Your task to perform on an android device: Open the stopwatch Image 0: 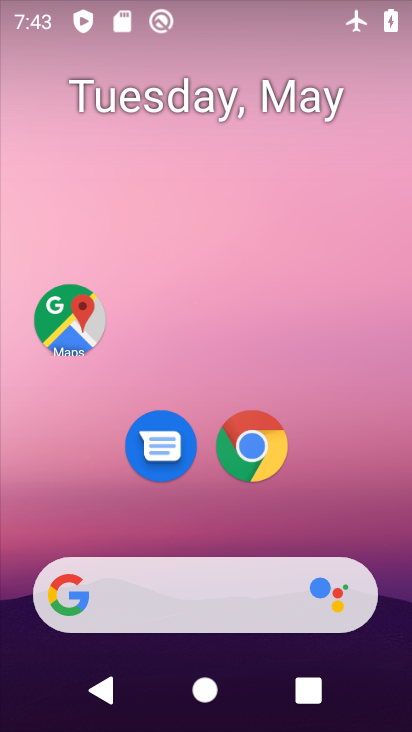
Step 0: drag from (321, 551) to (346, 3)
Your task to perform on an android device: Open the stopwatch Image 1: 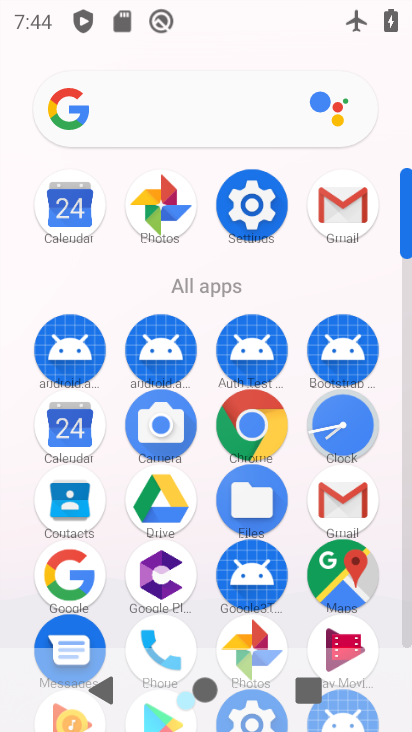
Step 1: click (362, 431)
Your task to perform on an android device: Open the stopwatch Image 2: 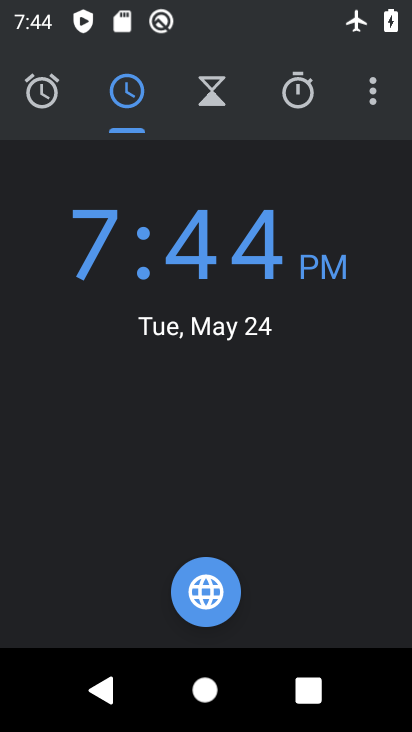
Step 2: click (297, 95)
Your task to perform on an android device: Open the stopwatch Image 3: 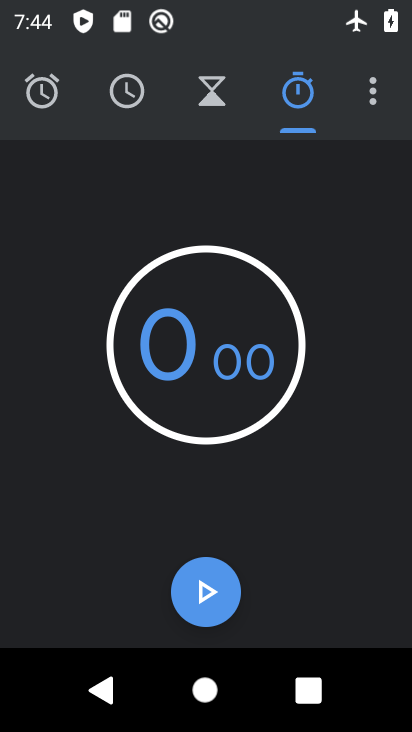
Step 3: task complete